Your task to perform on an android device: turn off translation in the chrome app Image 0: 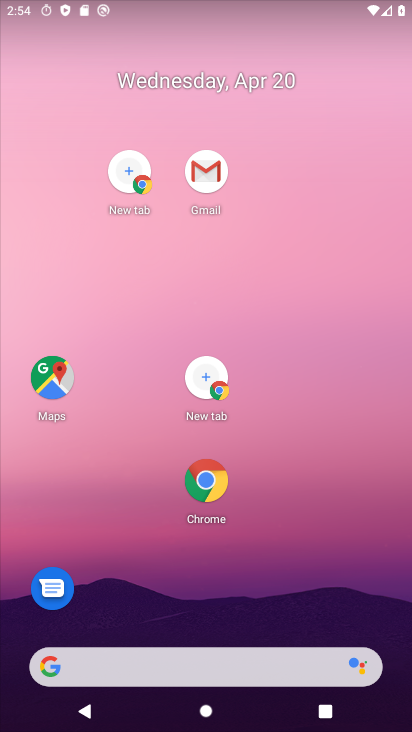
Step 0: click (193, 494)
Your task to perform on an android device: turn off translation in the chrome app Image 1: 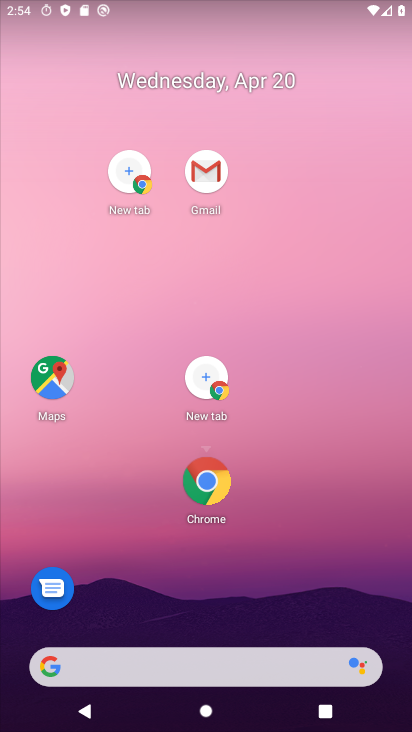
Step 1: click (193, 494)
Your task to perform on an android device: turn off translation in the chrome app Image 2: 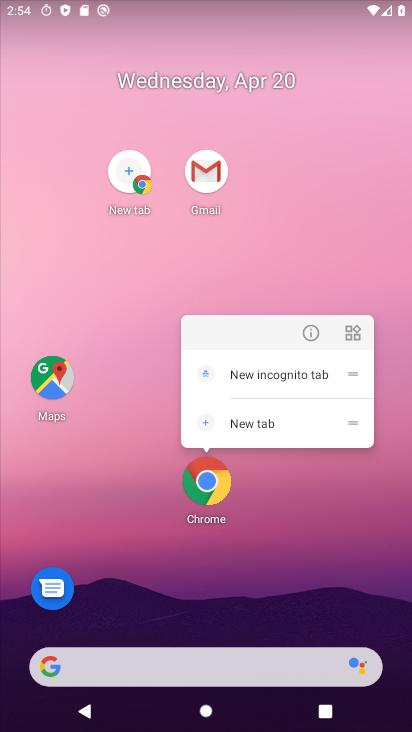
Step 2: click (194, 492)
Your task to perform on an android device: turn off translation in the chrome app Image 3: 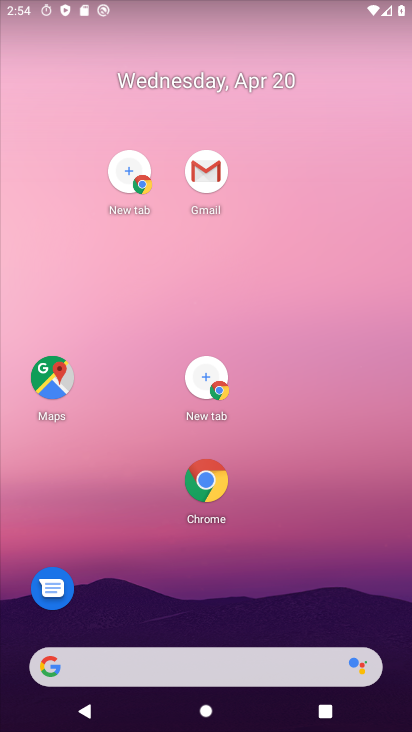
Step 3: click (207, 489)
Your task to perform on an android device: turn off translation in the chrome app Image 4: 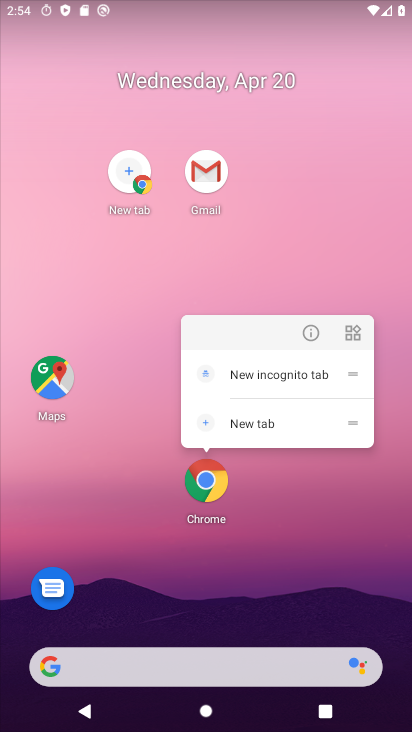
Step 4: click (224, 430)
Your task to perform on an android device: turn off translation in the chrome app Image 5: 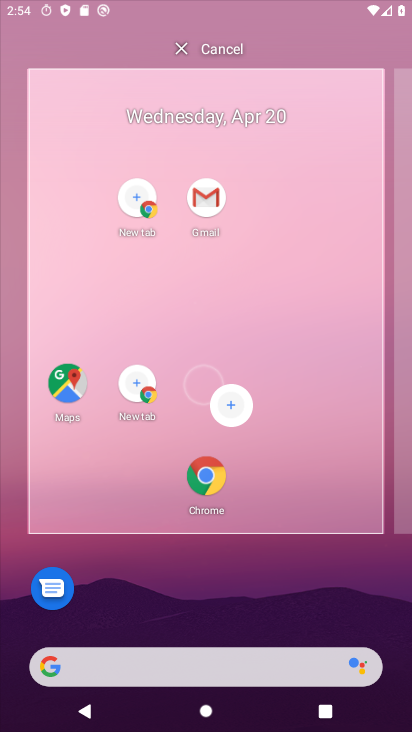
Step 5: click (231, 429)
Your task to perform on an android device: turn off translation in the chrome app Image 6: 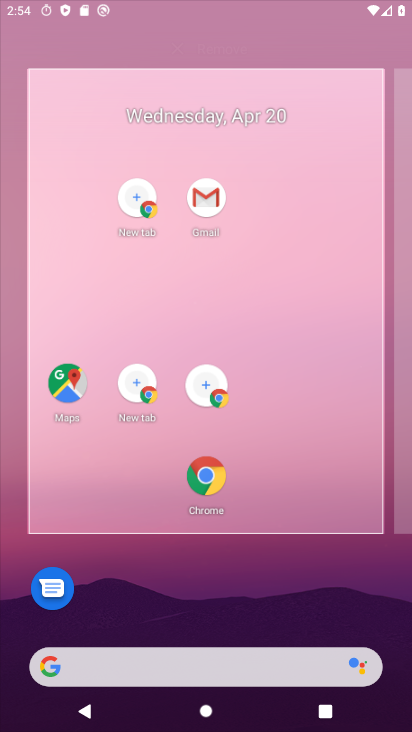
Step 6: click (204, 480)
Your task to perform on an android device: turn off translation in the chrome app Image 7: 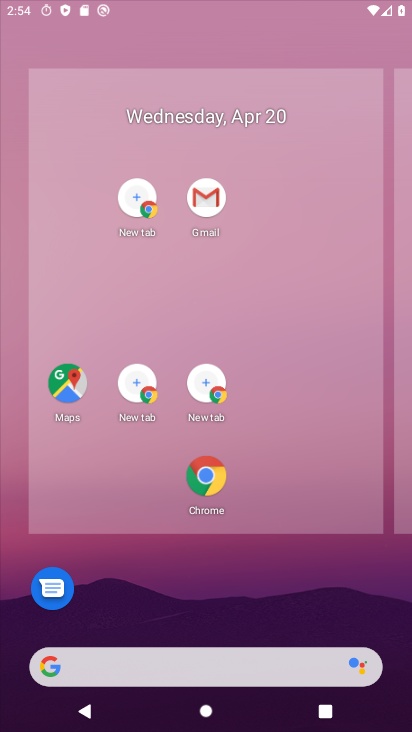
Step 7: click (206, 479)
Your task to perform on an android device: turn off translation in the chrome app Image 8: 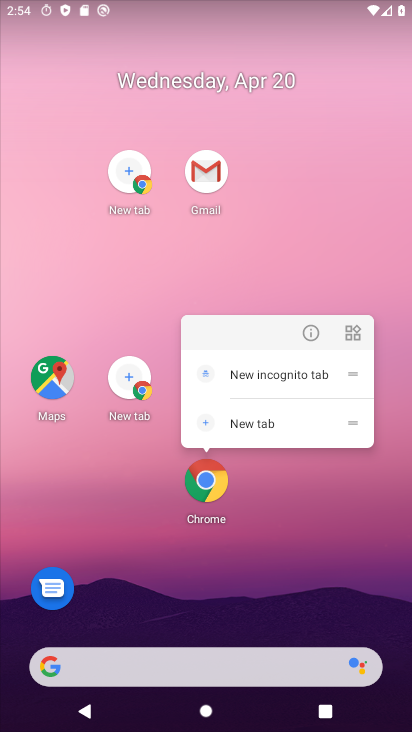
Step 8: click (209, 475)
Your task to perform on an android device: turn off translation in the chrome app Image 9: 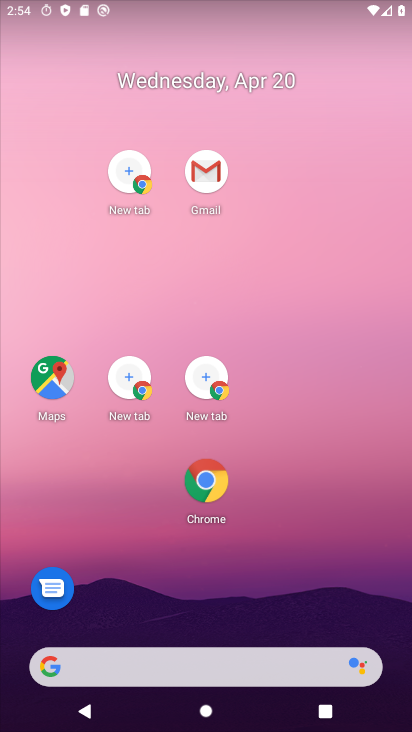
Step 9: click (244, 421)
Your task to perform on an android device: turn off translation in the chrome app Image 10: 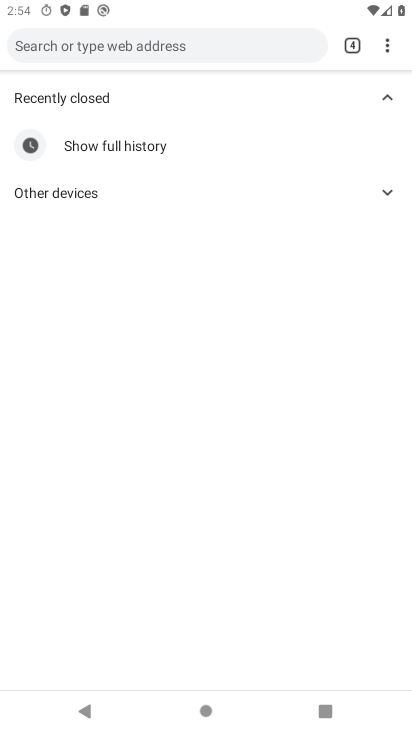
Step 10: drag from (385, 41) to (225, 381)
Your task to perform on an android device: turn off translation in the chrome app Image 11: 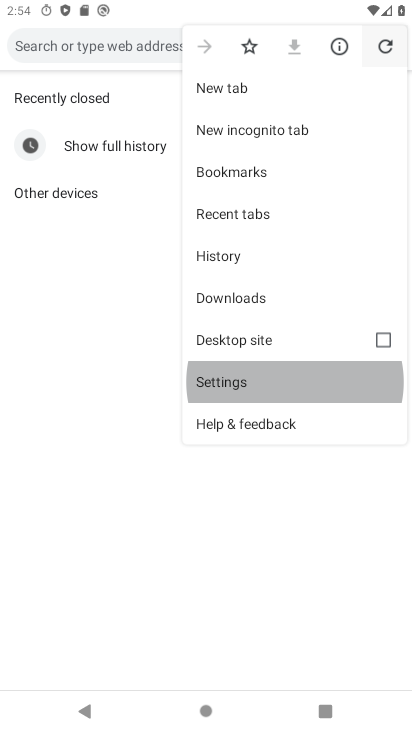
Step 11: click (225, 381)
Your task to perform on an android device: turn off translation in the chrome app Image 12: 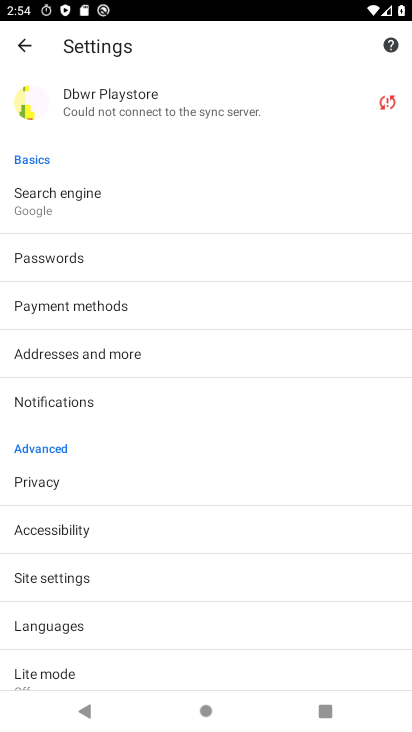
Step 12: click (50, 624)
Your task to perform on an android device: turn off translation in the chrome app Image 13: 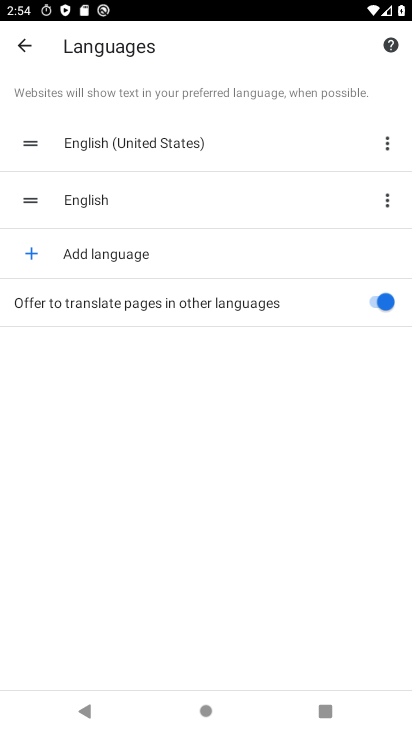
Step 13: click (138, 304)
Your task to perform on an android device: turn off translation in the chrome app Image 14: 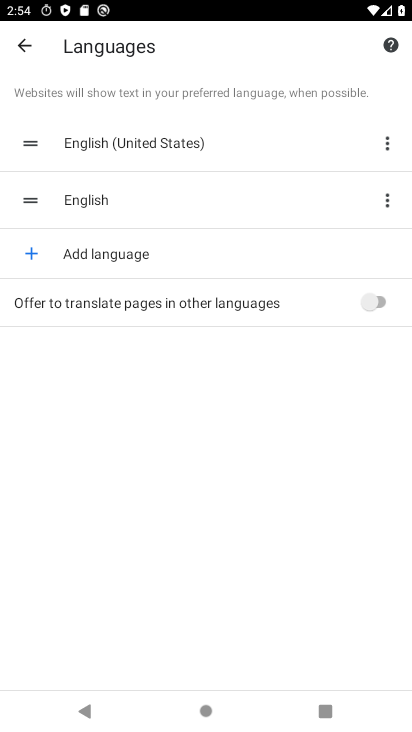
Step 14: task complete